Your task to perform on an android device: turn pop-ups on in chrome Image 0: 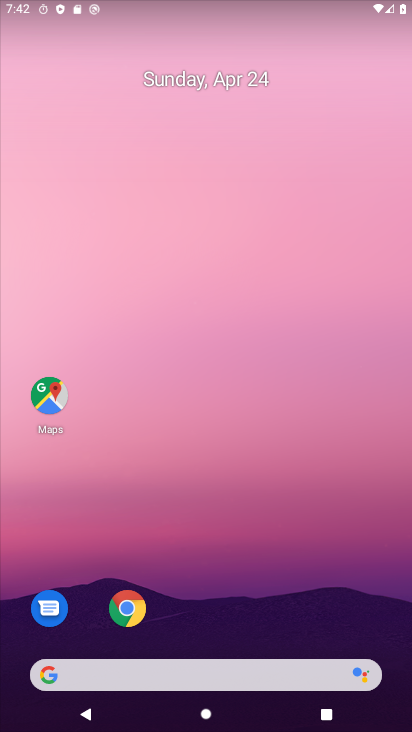
Step 0: click (133, 610)
Your task to perform on an android device: turn pop-ups on in chrome Image 1: 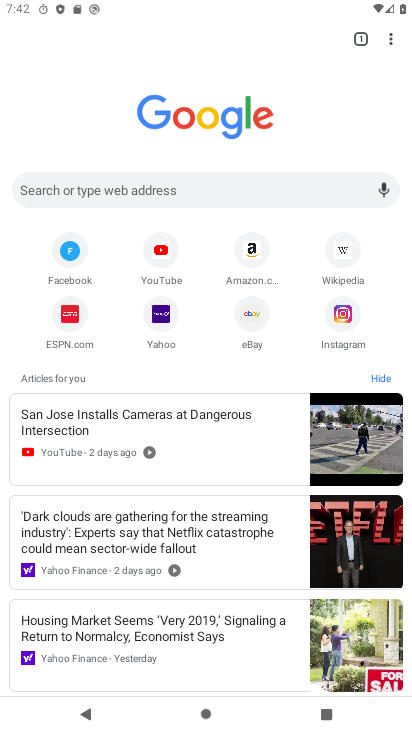
Step 1: click (391, 36)
Your task to perform on an android device: turn pop-ups on in chrome Image 2: 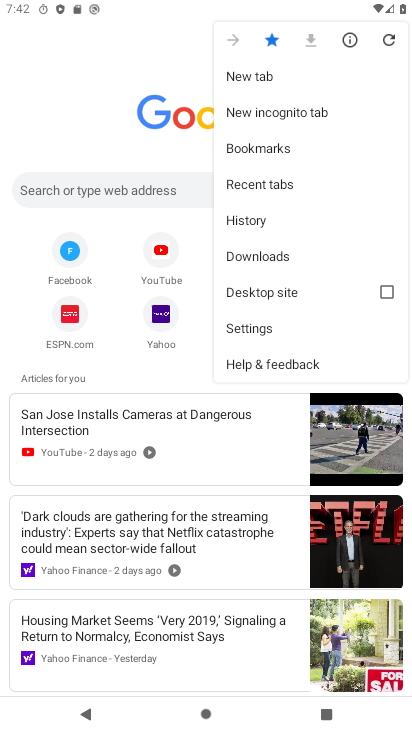
Step 2: click (281, 327)
Your task to perform on an android device: turn pop-ups on in chrome Image 3: 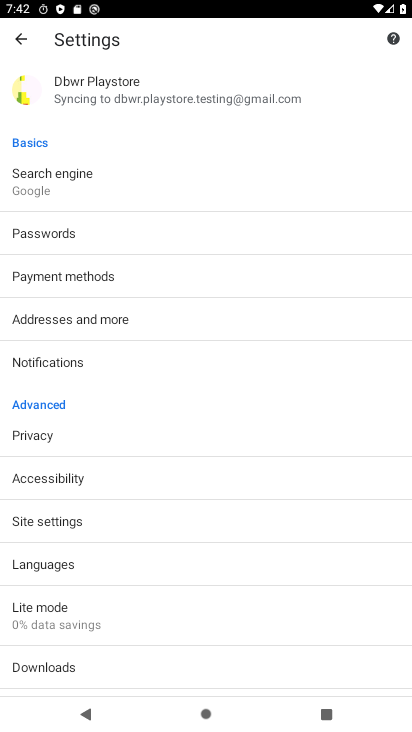
Step 3: click (158, 513)
Your task to perform on an android device: turn pop-ups on in chrome Image 4: 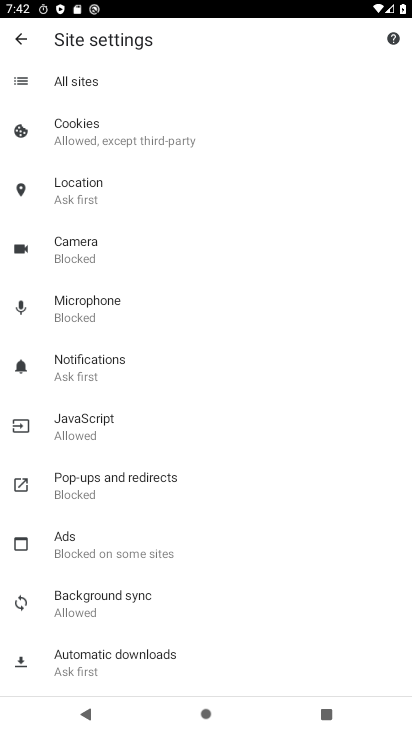
Step 4: click (173, 488)
Your task to perform on an android device: turn pop-ups on in chrome Image 5: 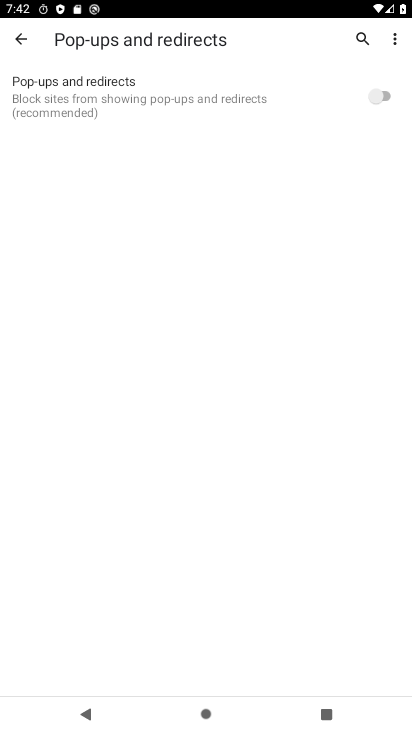
Step 5: click (379, 90)
Your task to perform on an android device: turn pop-ups on in chrome Image 6: 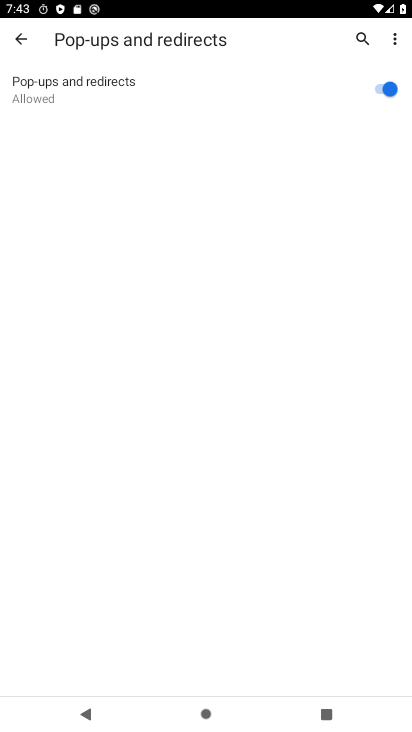
Step 6: task complete